Your task to perform on an android device: Open calendar and show me the third week of next month Image 0: 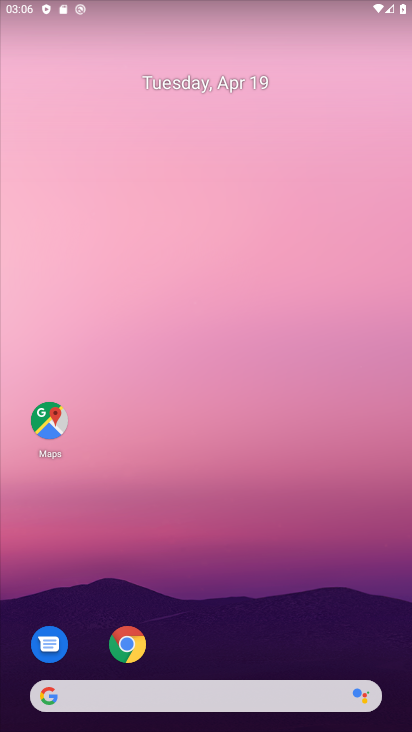
Step 0: drag from (380, 648) to (318, 215)
Your task to perform on an android device: Open calendar and show me the third week of next month Image 1: 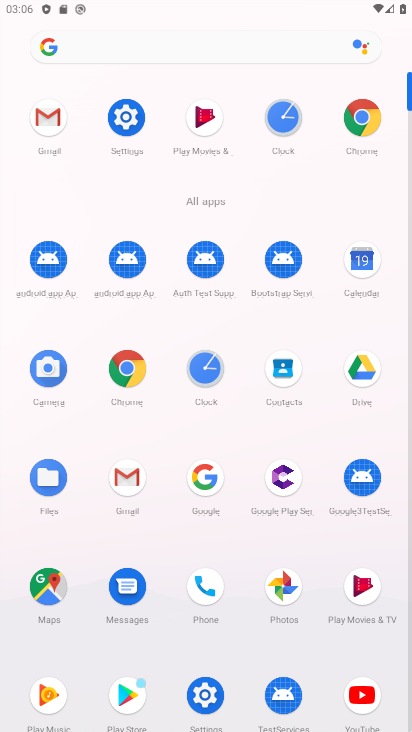
Step 1: click (355, 262)
Your task to perform on an android device: Open calendar and show me the third week of next month Image 2: 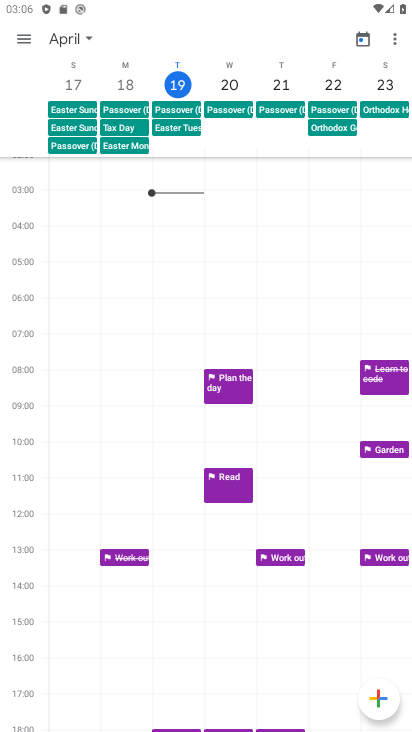
Step 2: click (96, 37)
Your task to perform on an android device: Open calendar and show me the third week of next month Image 3: 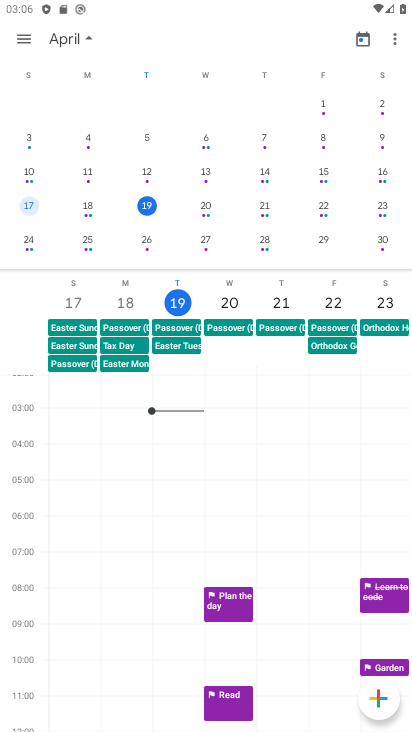
Step 3: drag from (375, 212) to (85, 216)
Your task to perform on an android device: Open calendar and show me the third week of next month Image 4: 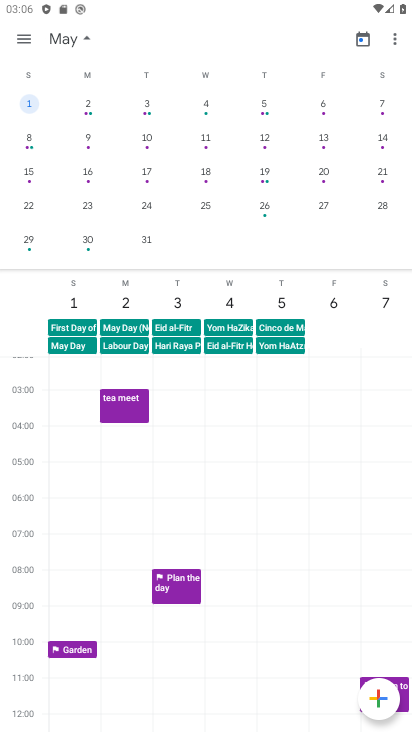
Step 4: click (27, 169)
Your task to perform on an android device: Open calendar and show me the third week of next month Image 5: 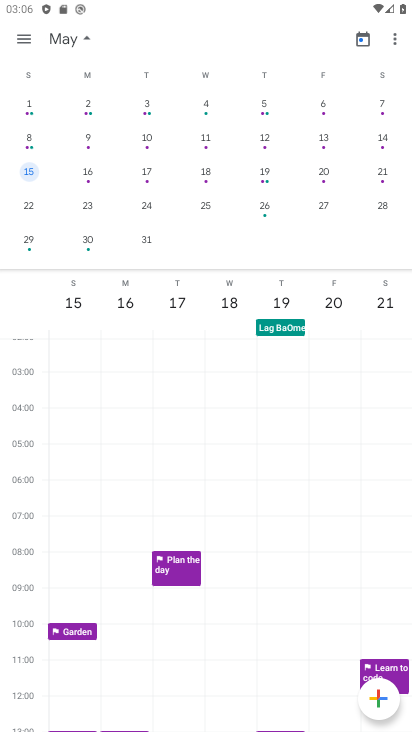
Step 5: task complete